Your task to perform on an android device: Search for "razer kraken" on amazon.com, select the first entry, add it to the cart, then select checkout. Image 0: 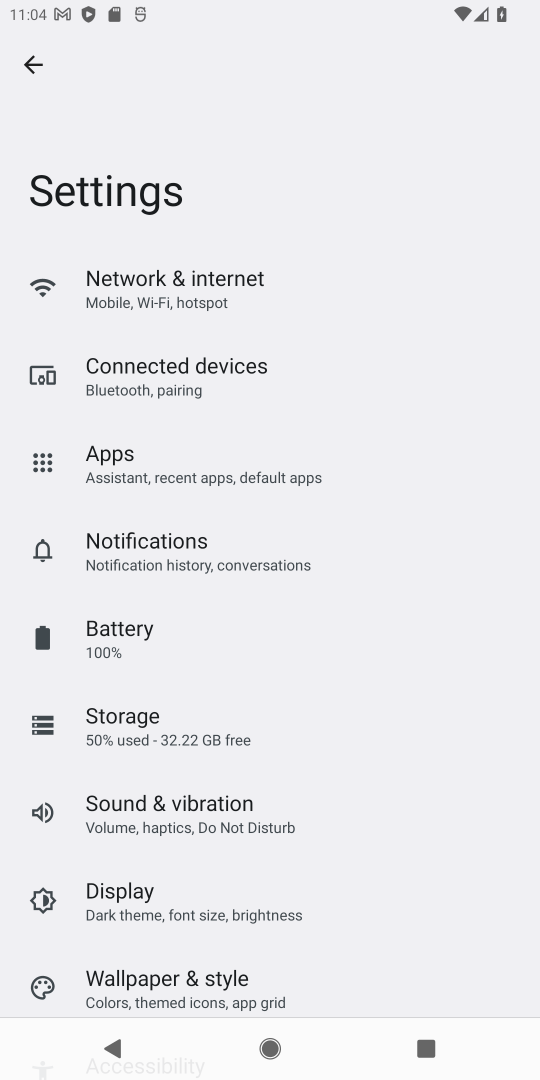
Step 0: press home button
Your task to perform on an android device: Search for "razer kraken" on amazon.com, select the first entry, add it to the cart, then select checkout. Image 1: 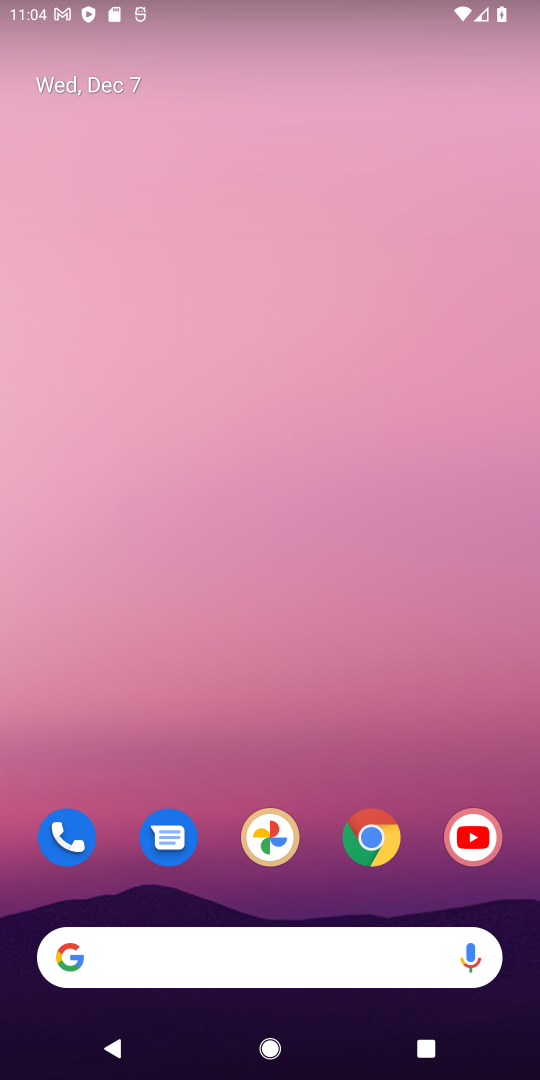
Step 1: click (379, 834)
Your task to perform on an android device: Search for "razer kraken" on amazon.com, select the first entry, add it to the cart, then select checkout. Image 2: 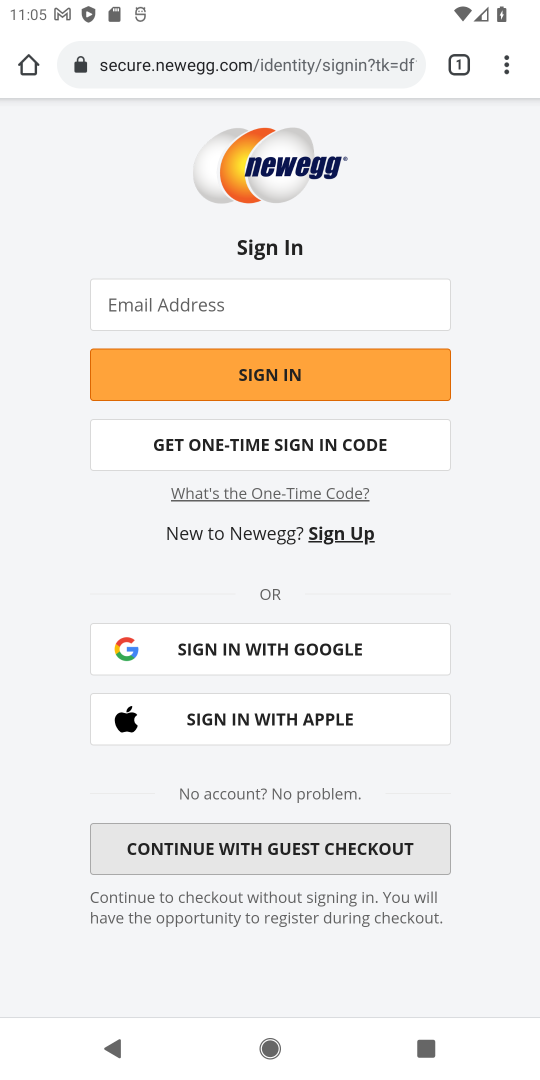
Step 2: click (259, 57)
Your task to perform on an android device: Search for "razer kraken" on amazon.com, select the first entry, add it to the cart, then select checkout. Image 3: 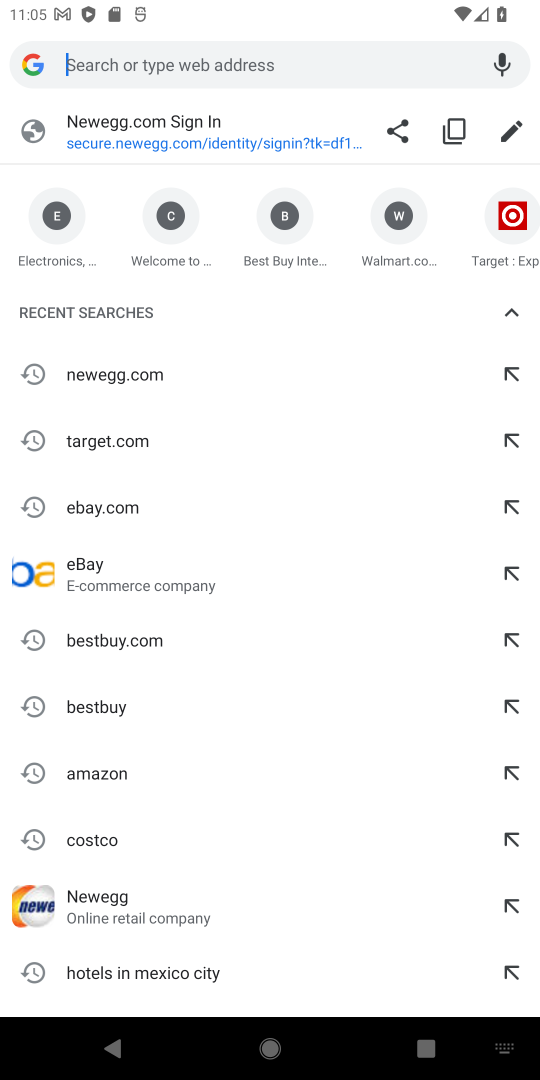
Step 3: type "amazon.com"
Your task to perform on an android device: Search for "razer kraken" on amazon.com, select the first entry, add it to the cart, then select checkout. Image 4: 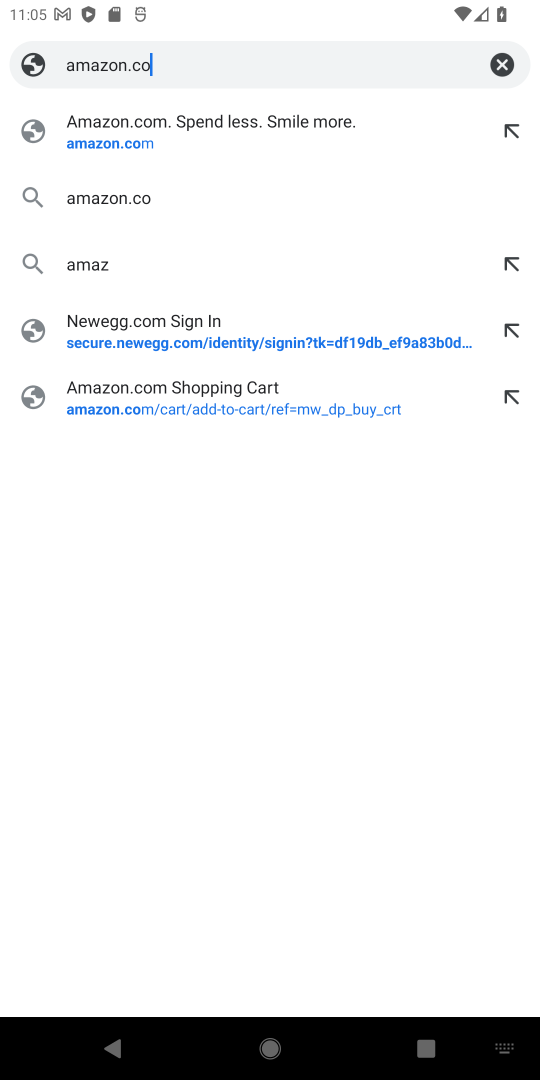
Step 4: press enter
Your task to perform on an android device: Search for "razer kraken" on amazon.com, select the first entry, add it to the cart, then select checkout. Image 5: 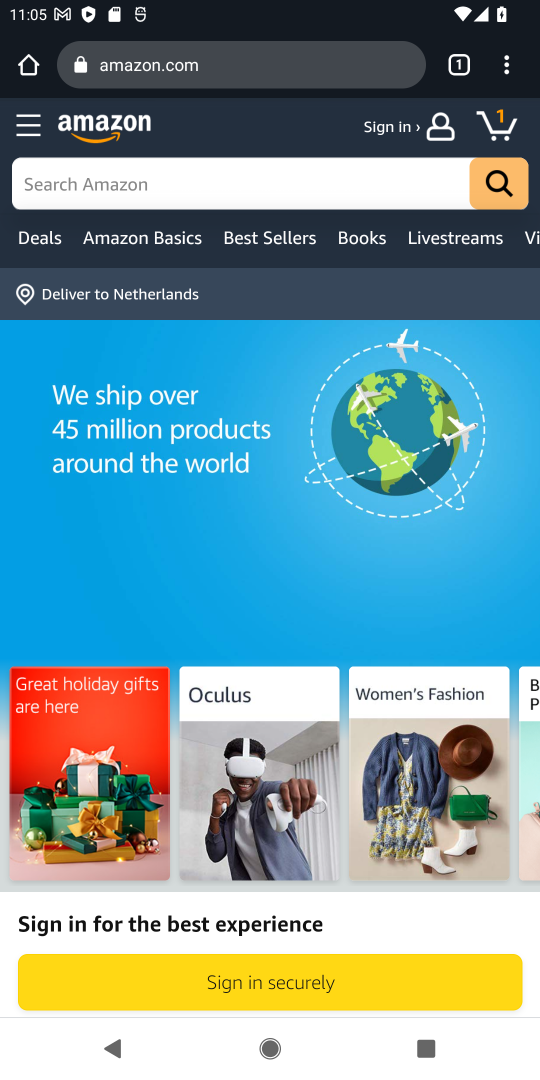
Step 5: click (140, 171)
Your task to perform on an android device: Search for "razer kraken" on amazon.com, select the first entry, add it to the cart, then select checkout. Image 6: 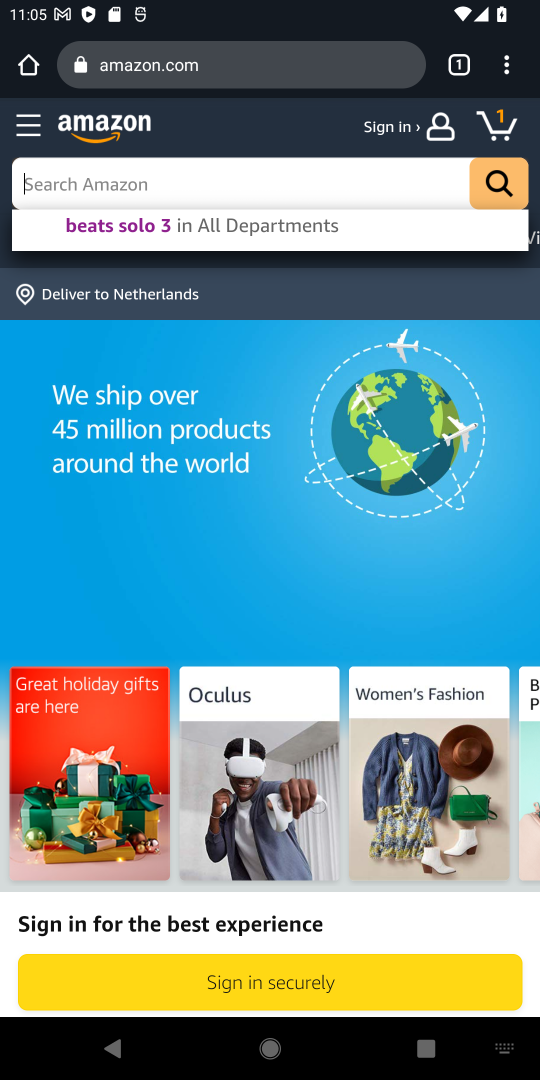
Step 6: type "razer kraken"
Your task to perform on an android device: Search for "razer kraken" on amazon.com, select the first entry, add it to the cart, then select checkout. Image 7: 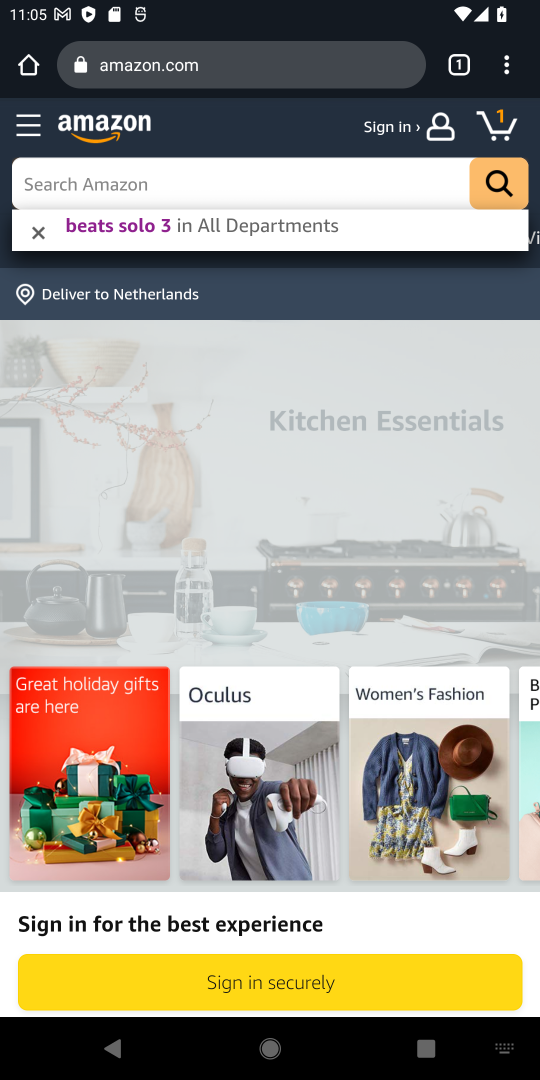
Step 7: press enter
Your task to perform on an android device: Search for "razer kraken" on amazon.com, select the first entry, add it to the cart, then select checkout. Image 8: 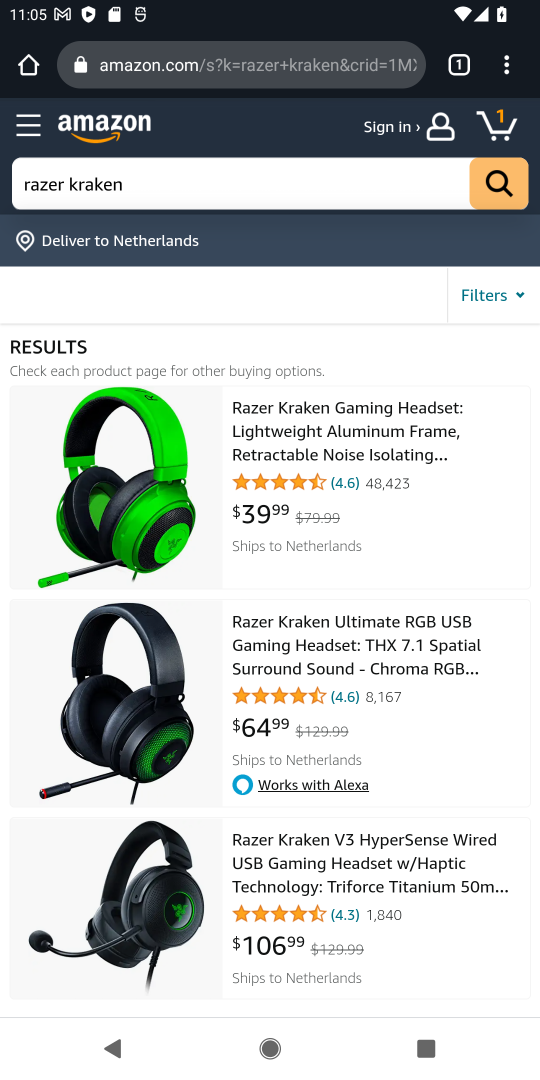
Step 8: click (123, 467)
Your task to perform on an android device: Search for "razer kraken" on amazon.com, select the first entry, add it to the cart, then select checkout. Image 9: 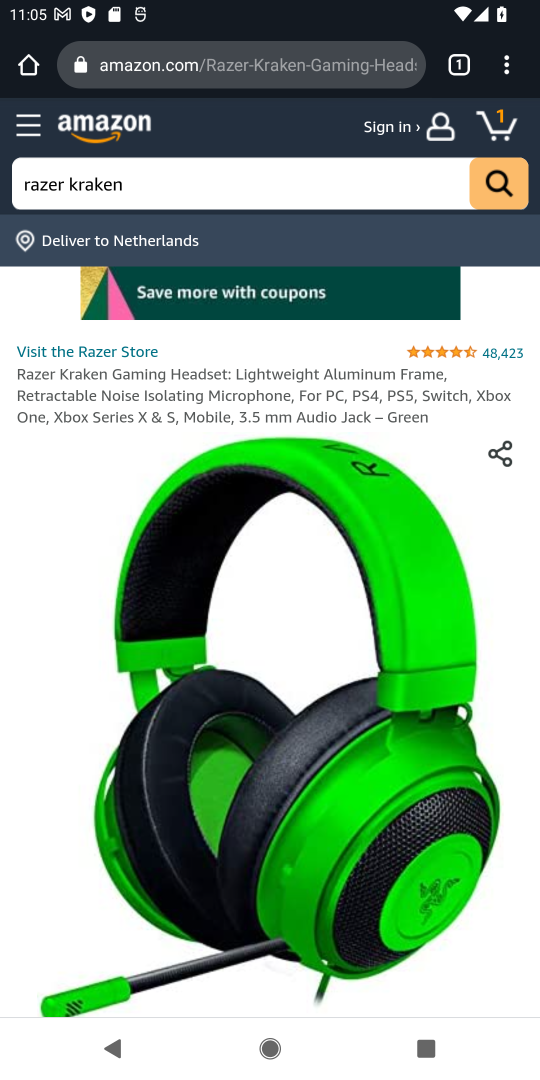
Step 9: drag from (377, 753) to (388, 272)
Your task to perform on an android device: Search for "razer kraken" on amazon.com, select the first entry, add it to the cart, then select checkout. Image 10: 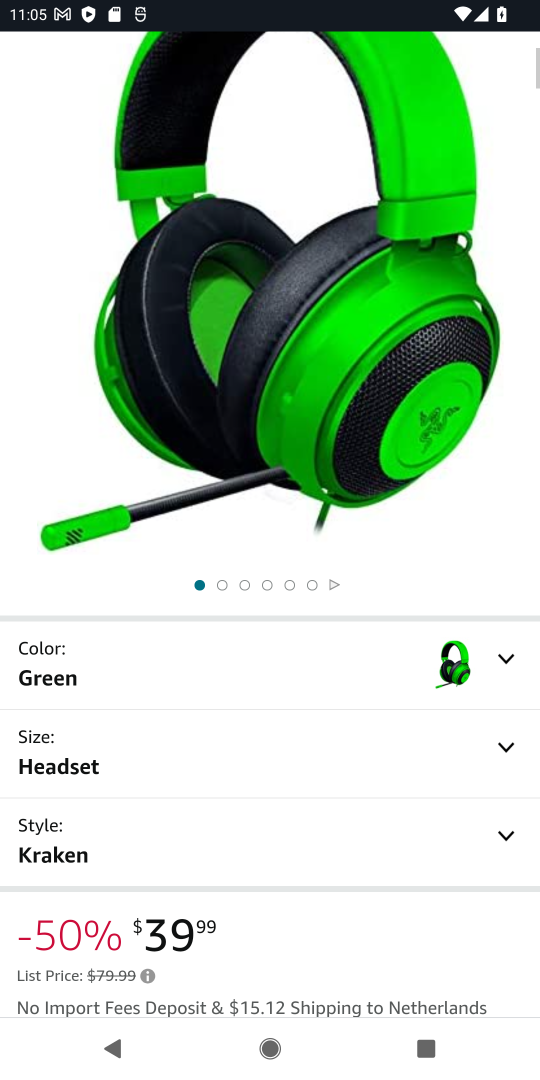
Step 10: drag from (379, 803) to (319, 425)
Your task to perform on an android device: Search for "razer kraken" on amazon.com, select the first entry, add it to the cart, then select checkout. Image 11: 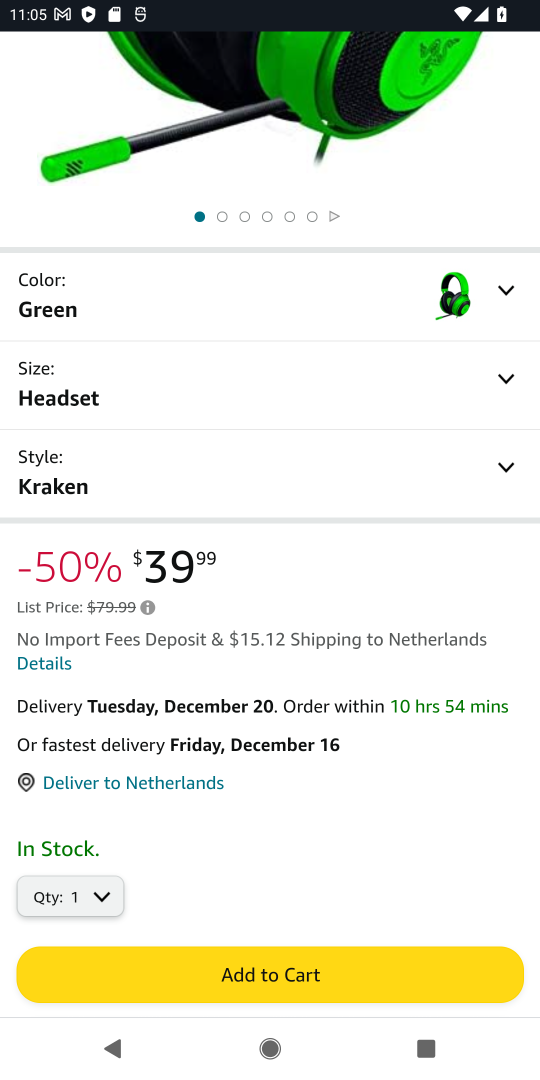
Step 11: click (294, 980)
Your task to perform on an android device: Search for "razer kraken" on amazon.com, select the first entry, add it to the cart, then select checkout. Image 12: 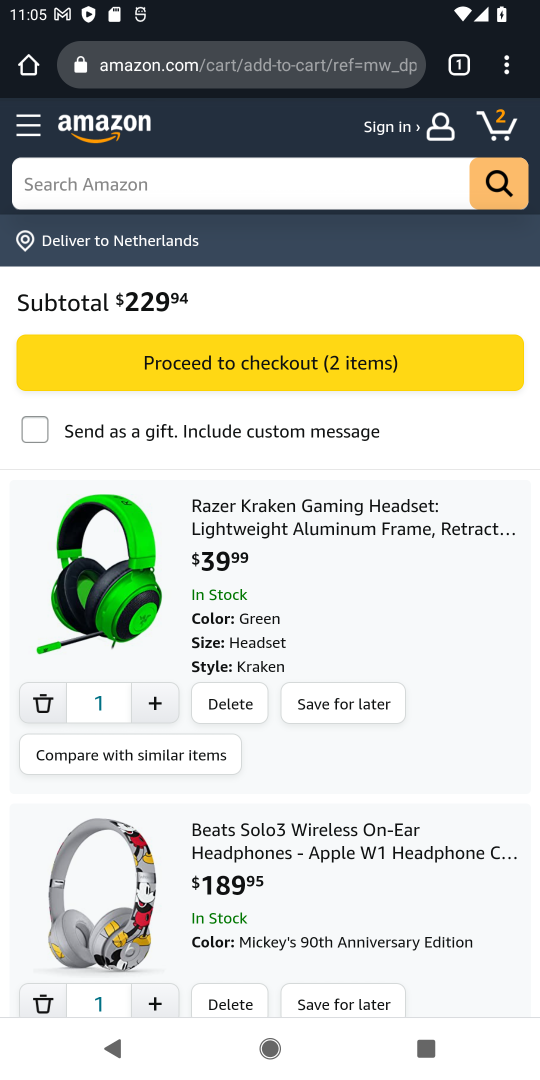
Step 12: click (278, 358)
Your task to perform on an android device: Search for "razer kraken" on amazon.com, select the first entry, add it to the cart, then select checkout. Image 13: 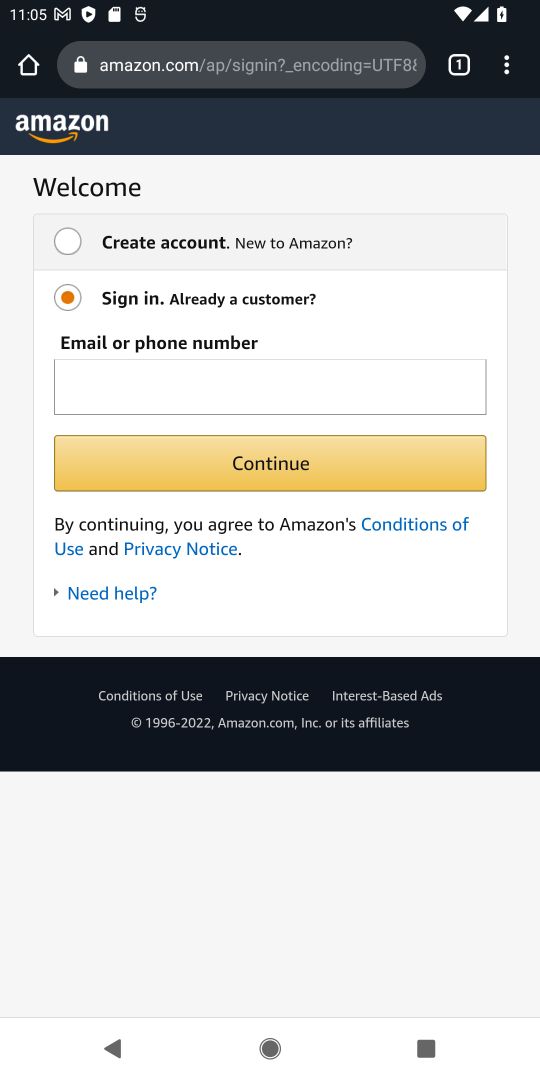
Step 13: task complete